Your task to perform on an android device: open app "Messages" Image 0: 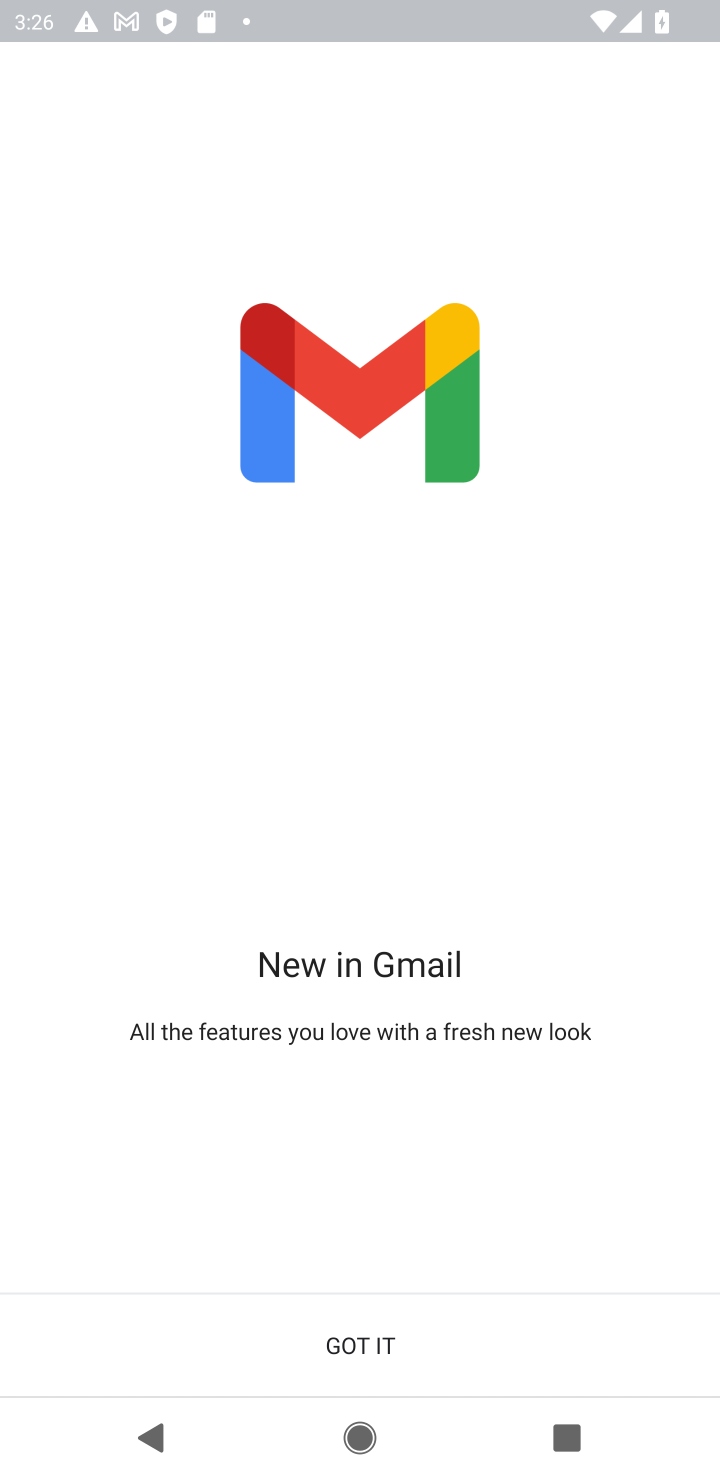
Step 0: press home button
Your task to perform on an android device: open app "Messages" Image 1: 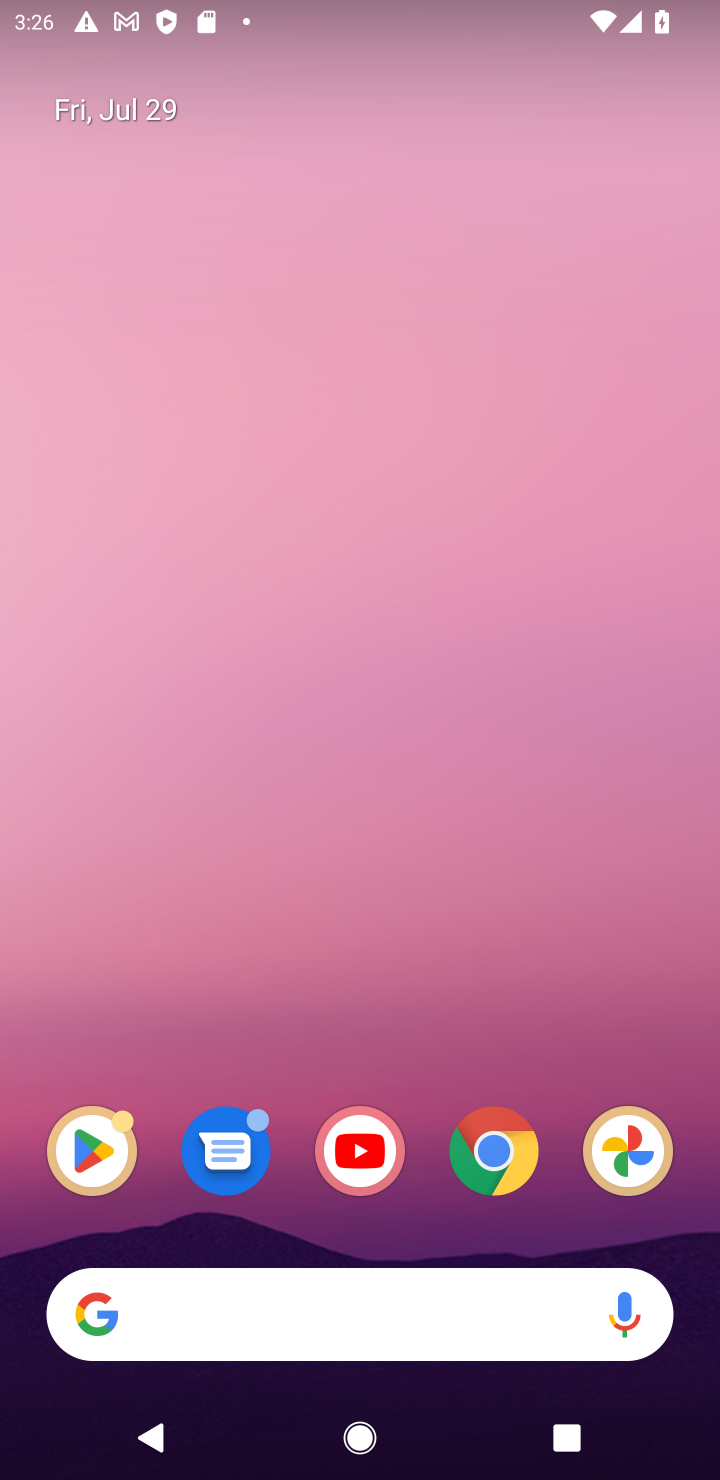
Step 1: drag from (688, 1077) to (332, 166)
Your task to perform on an android device: open app "Messages" Image 2: 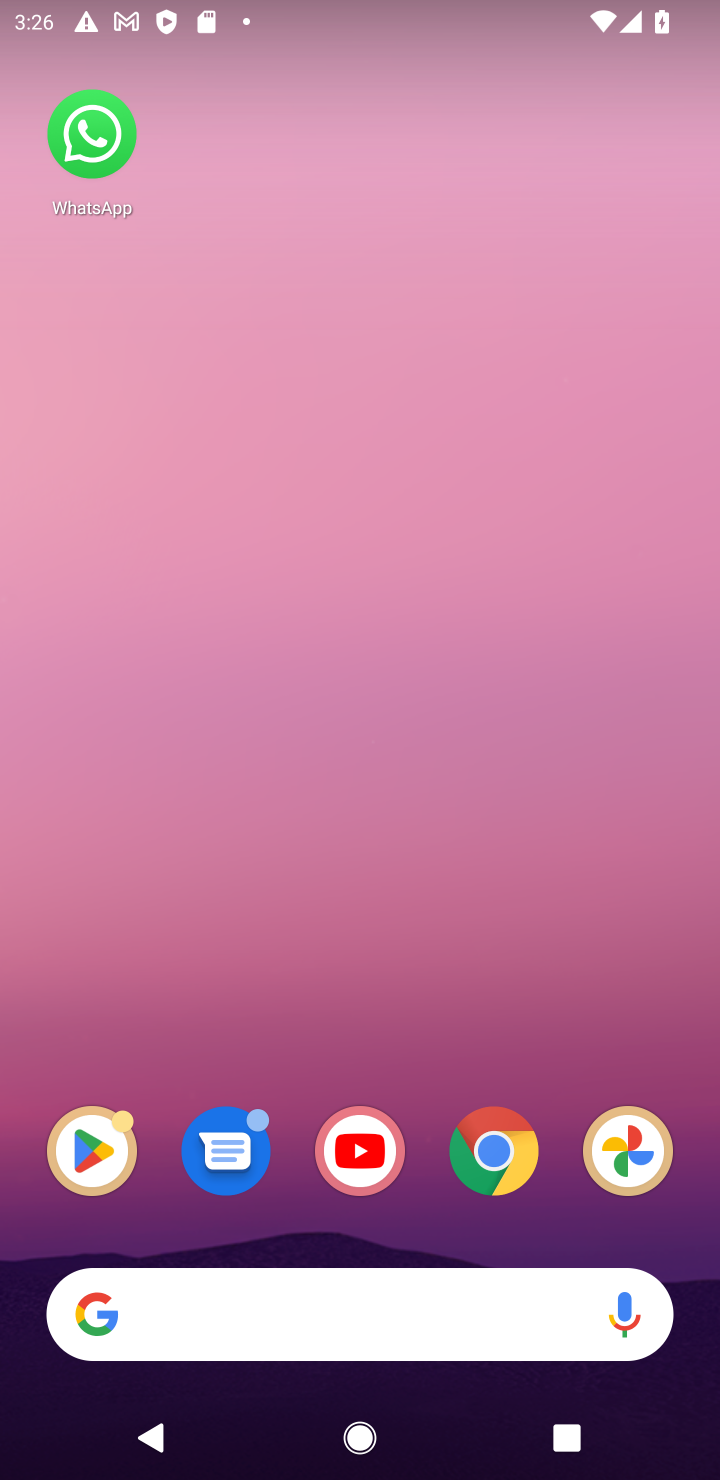
Step 2: drag from (409, 1045) to (423, 18)
Your task to perform on an android device: open app "Messages" Image 3: 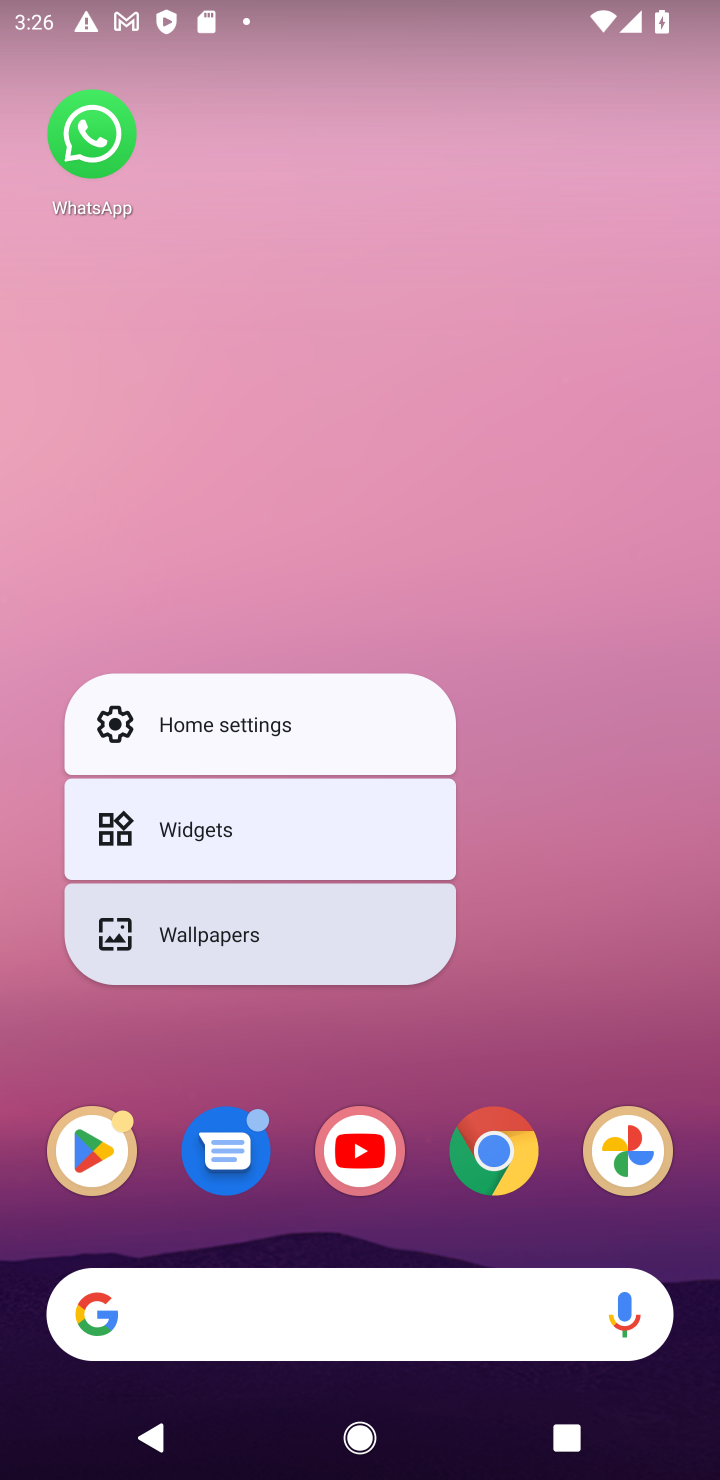
Step 3: drag from (704, 1153) to (541, 46)
Your task to perform on an android device: open app "Messages" Image 4: 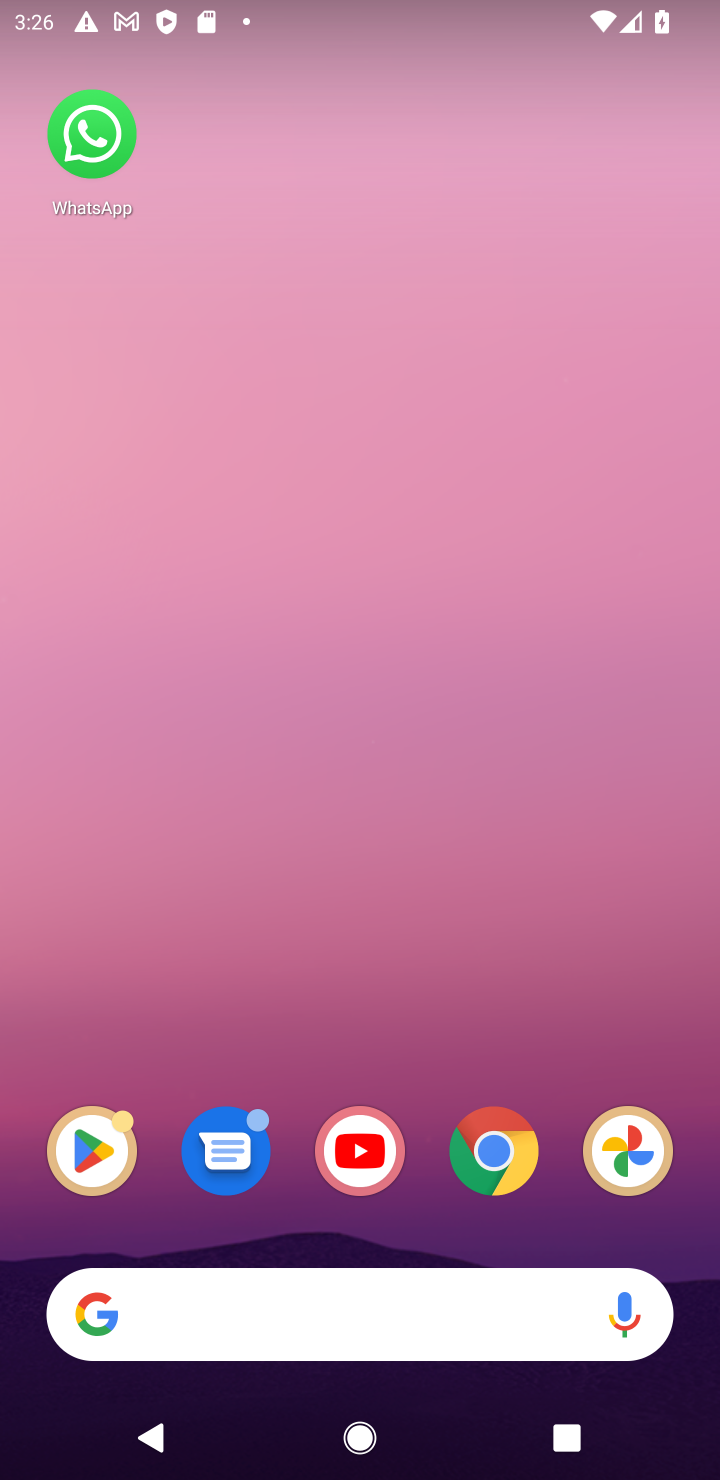
Step 4: drag from (428, 1233) to (453, 196)
Your task to perform on an android device: open app "Messages" Image 5: 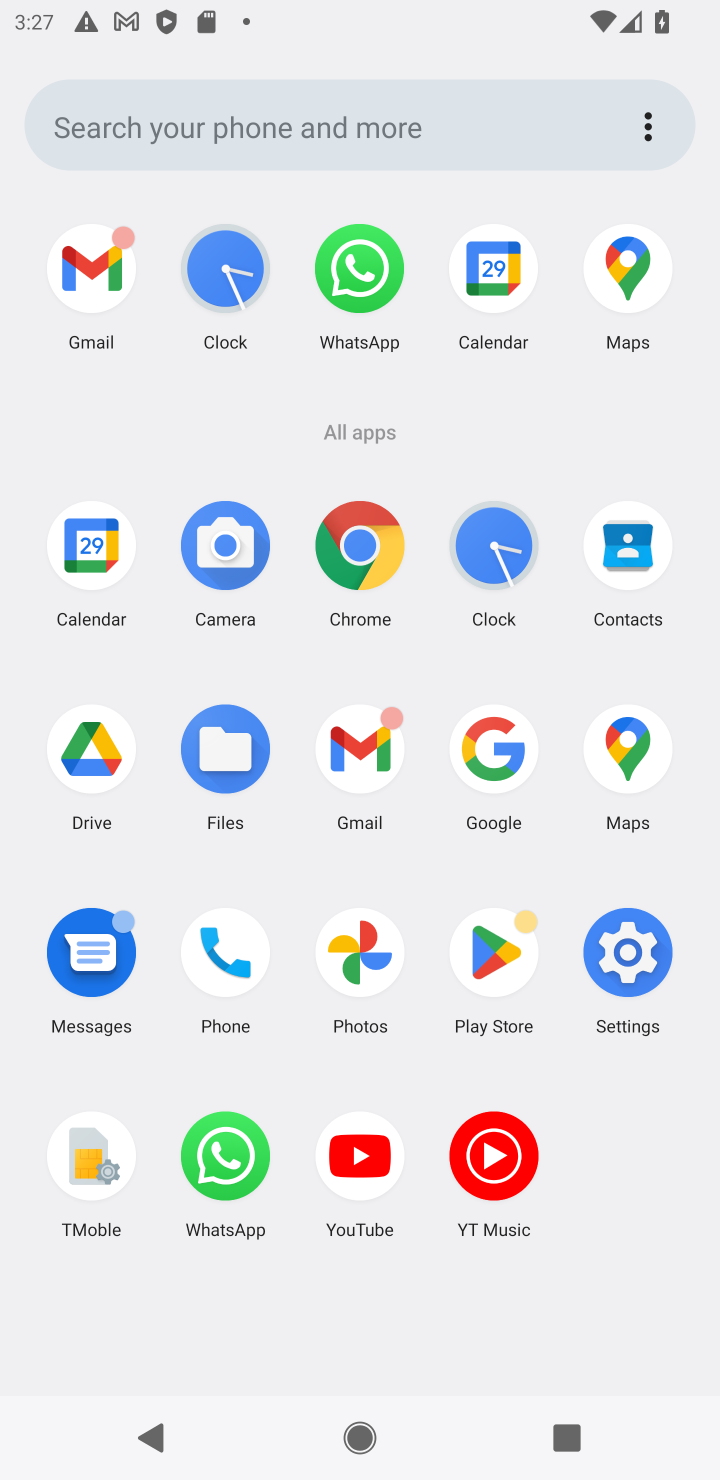
Step 5: click (97, 956)
Your task to perform on an android device: open app "Messages" Image 6: 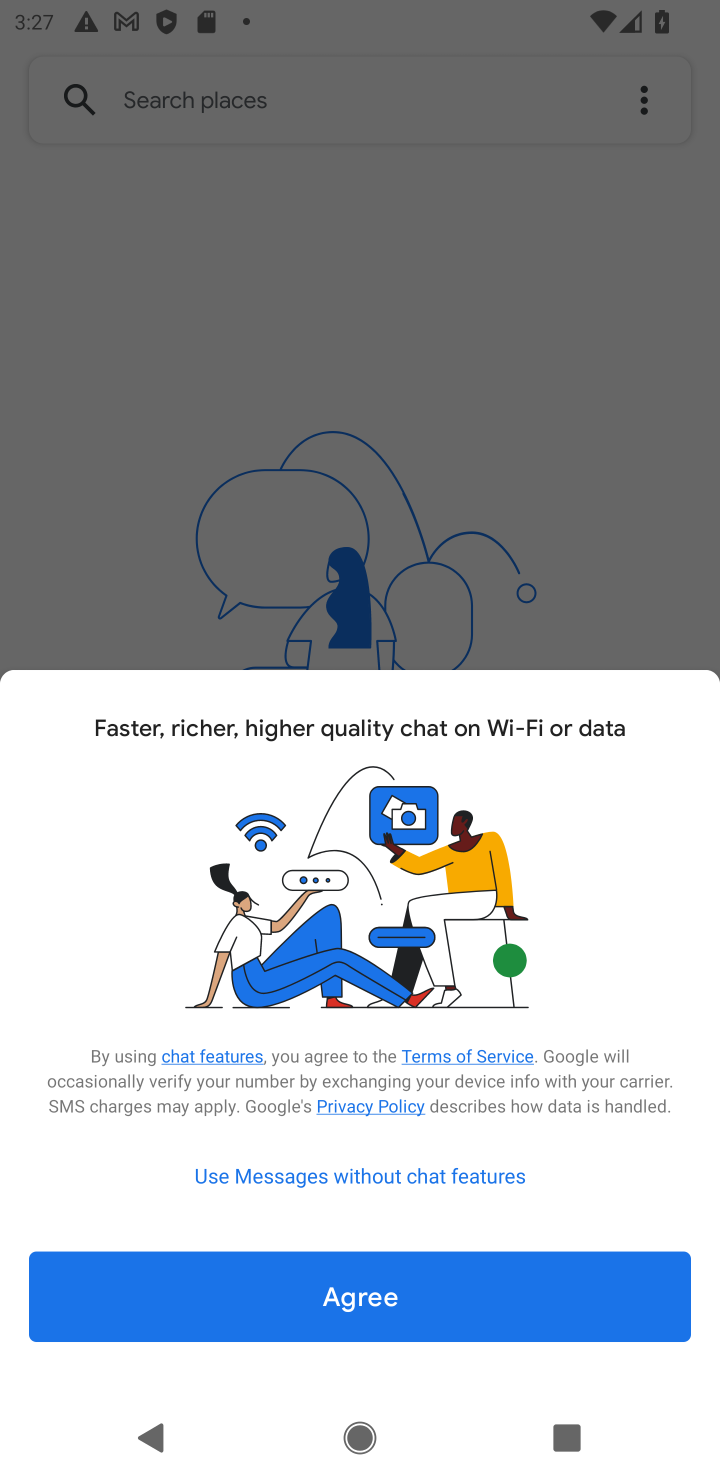
Step 6: click (580, 1335)
Your task to perform on an android device: open app "Messages" Image 7: 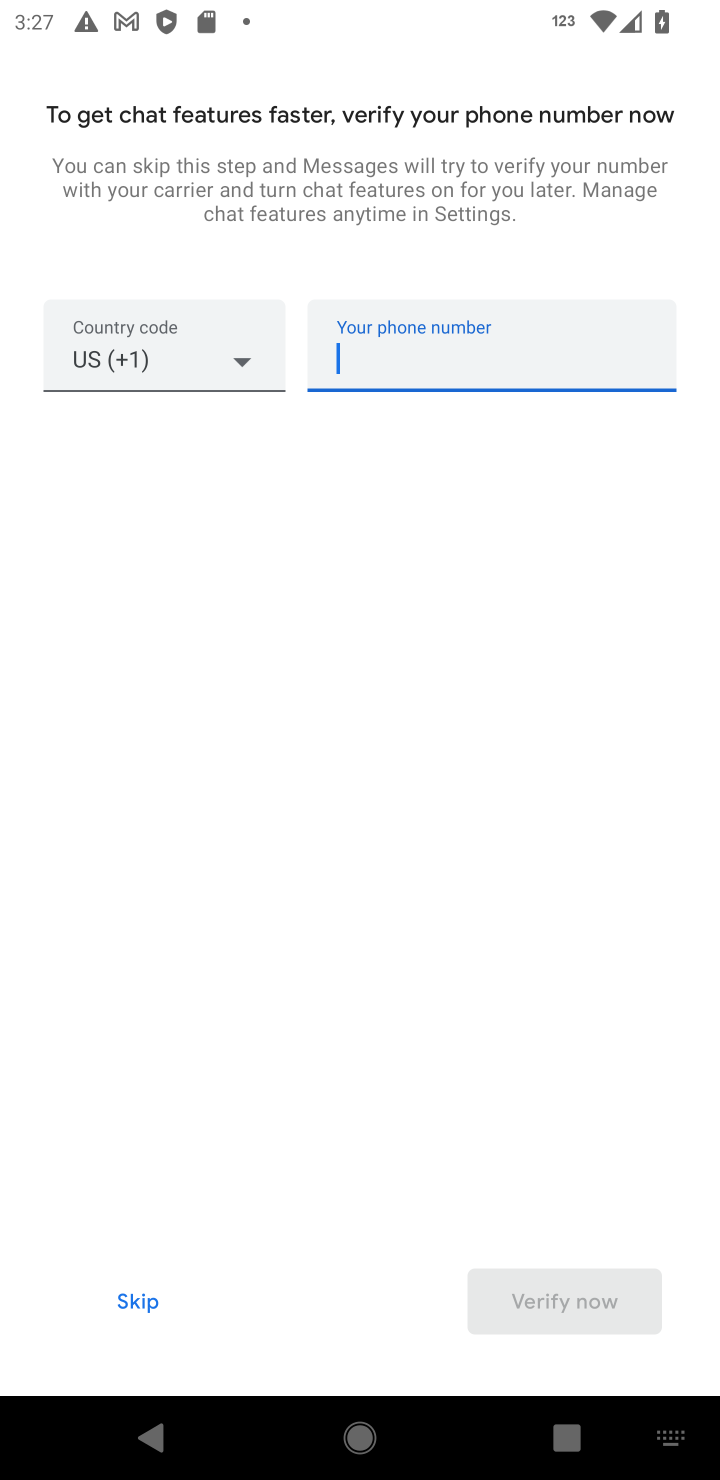
Step 7: click (142, 1311)
Your task to perform on an android device: open app "Messages" Image 8: 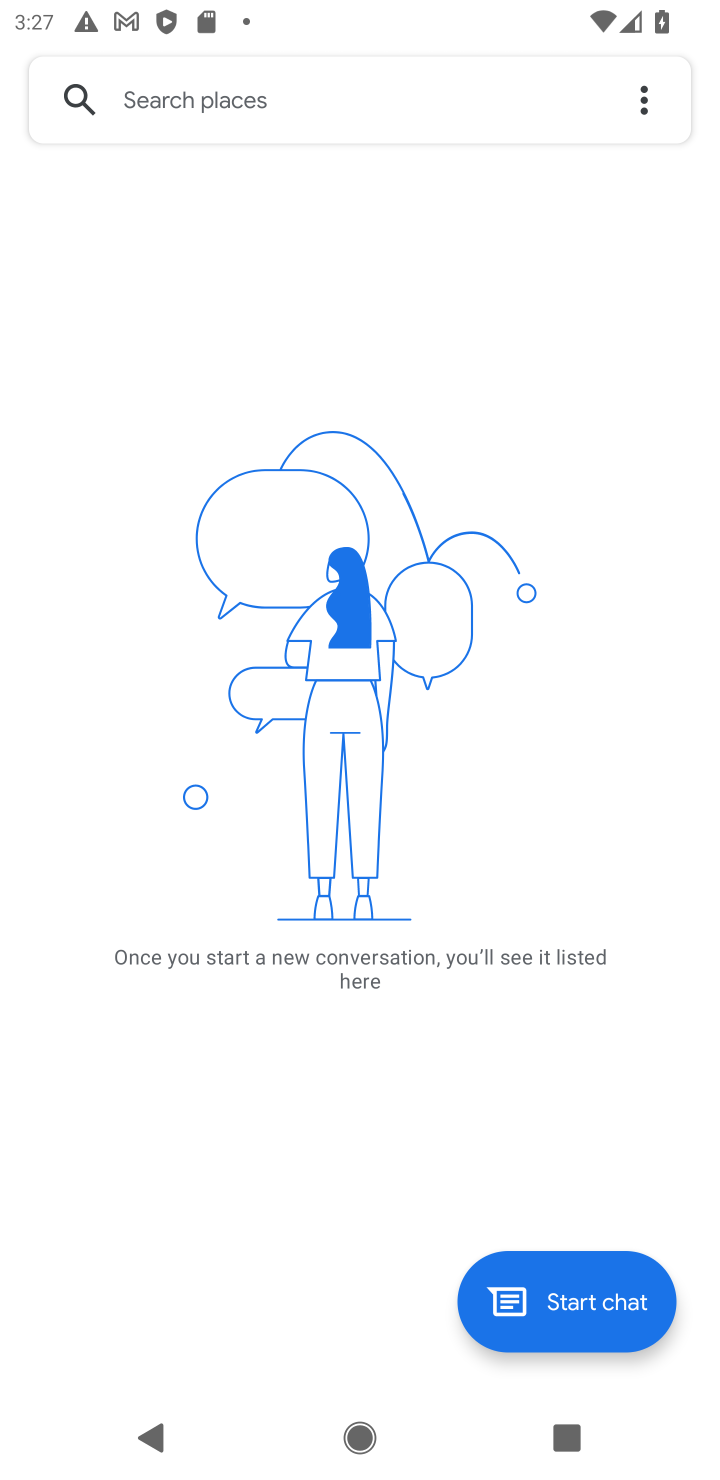
Step 8: task complete